Your task to perform on an android device: change timer sound Image 0: 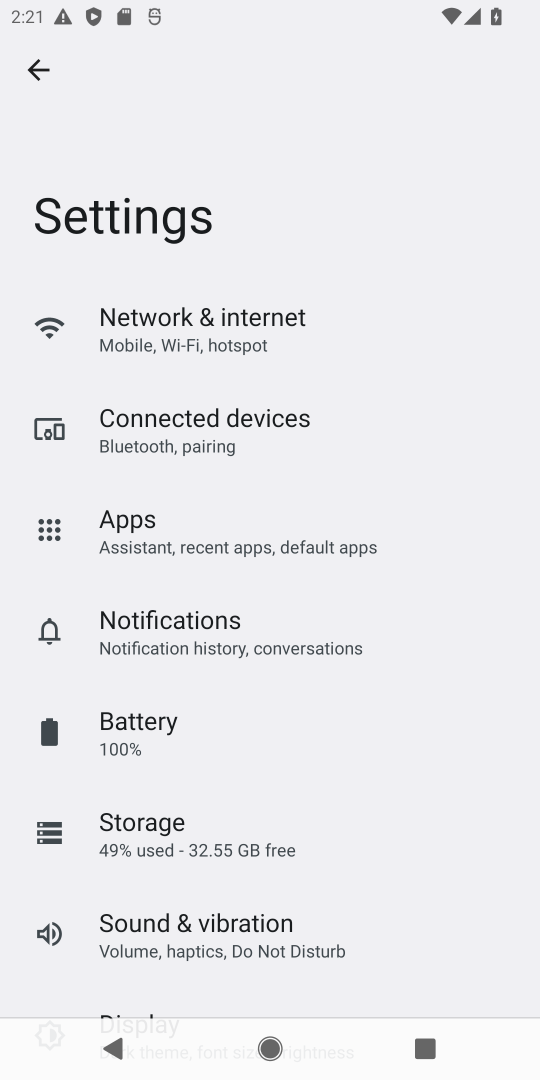
Step 0: press home button
Your task to perform on an android device: change timer sound Image 1: 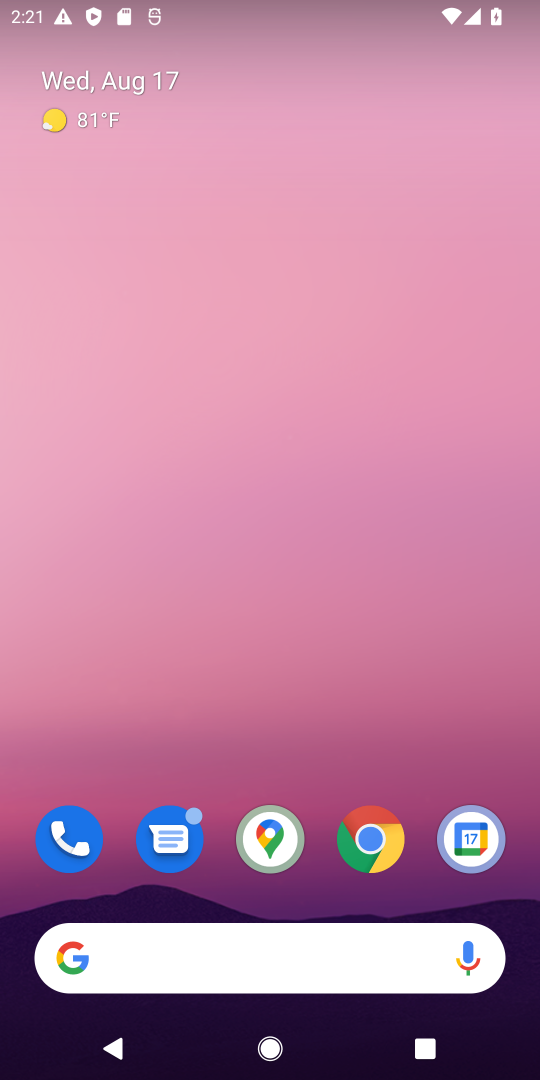
Step 1: drag from (310, 872) to (242, 27)
Your task to perform on an android device: change timer sound Image 2: 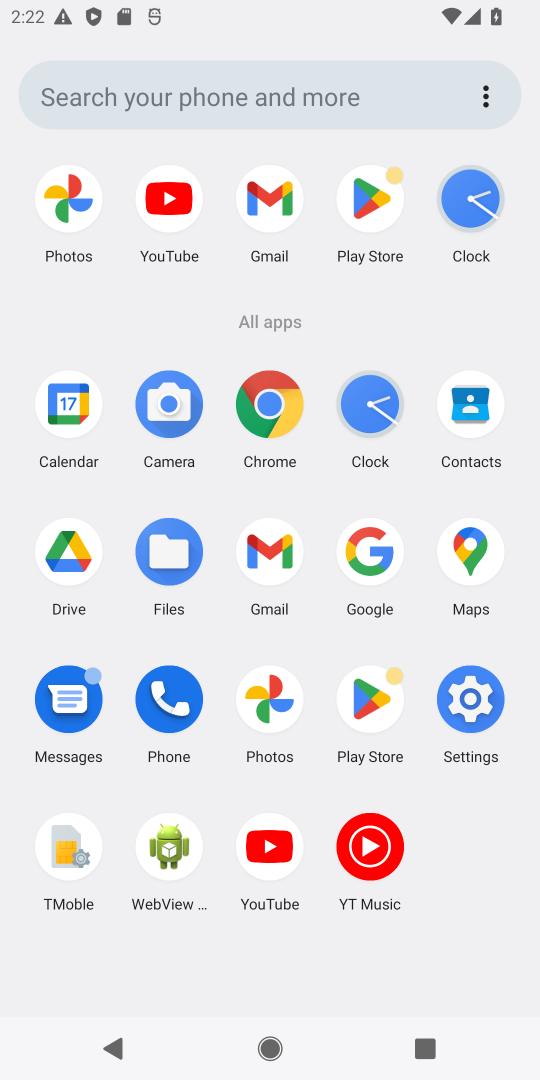
Step 2: click (379, 409)
Your task to perform on an android device: change timer sound Image 3: 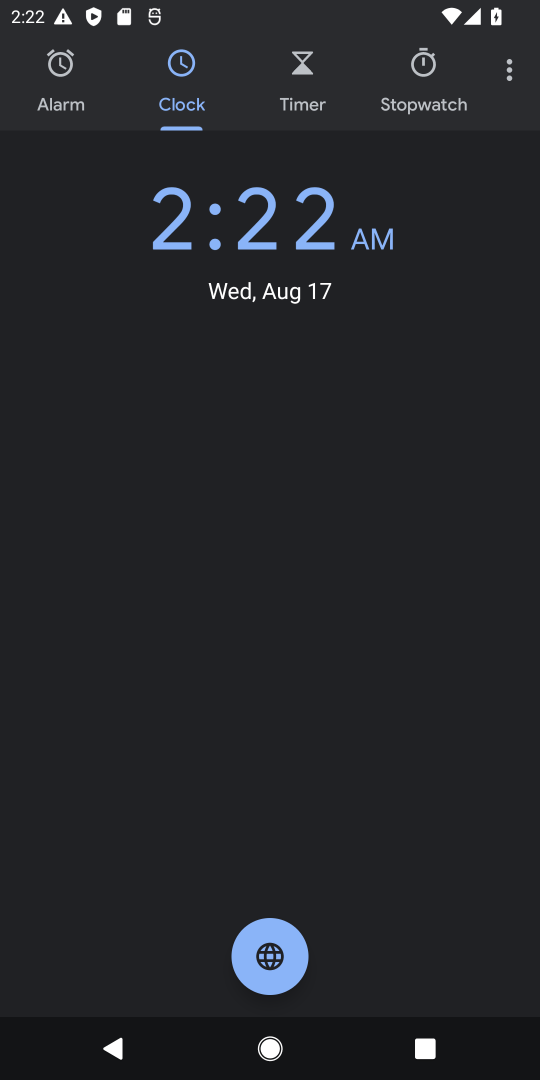
Step 3: click (510, 77)
Your task to perform on an android device: change timer sound Image 4: 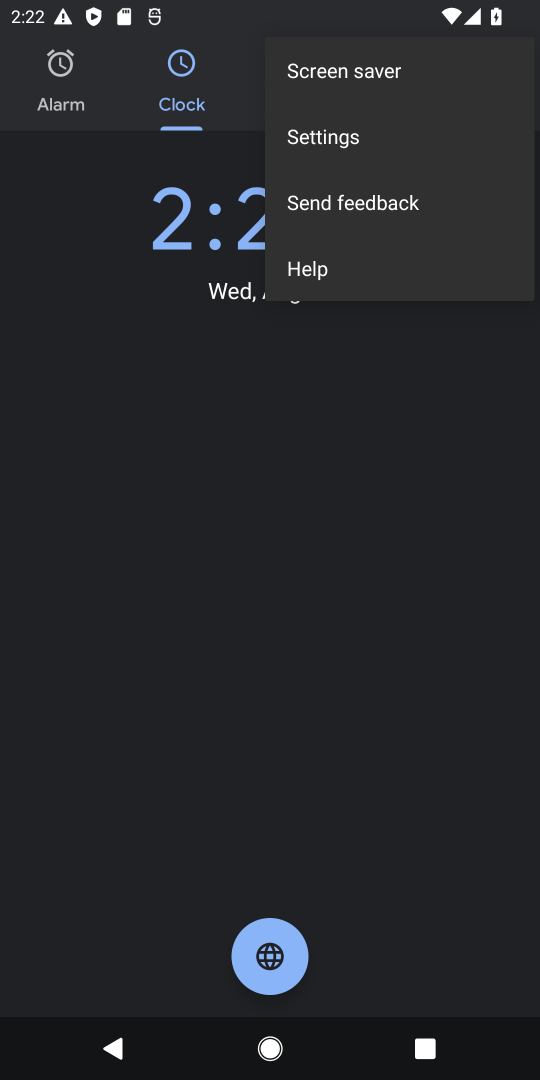
Step 4: click (334, 138)
Your task to perform on an android device: change timer sound Image 5: 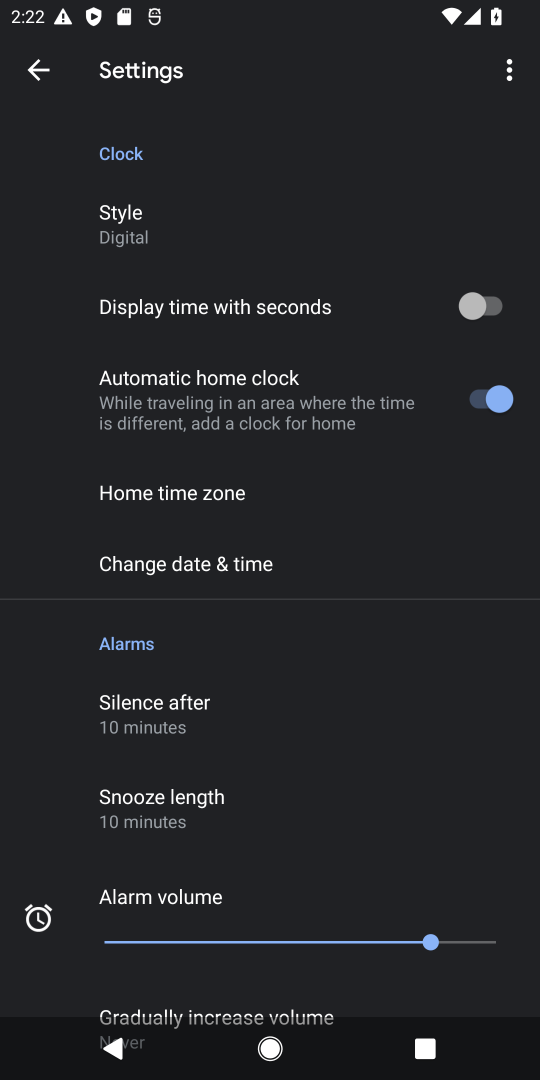
Step 5: drag from (167, 845) to (127, 548)
Your task to perform on an android device: change timer sound Image 6: 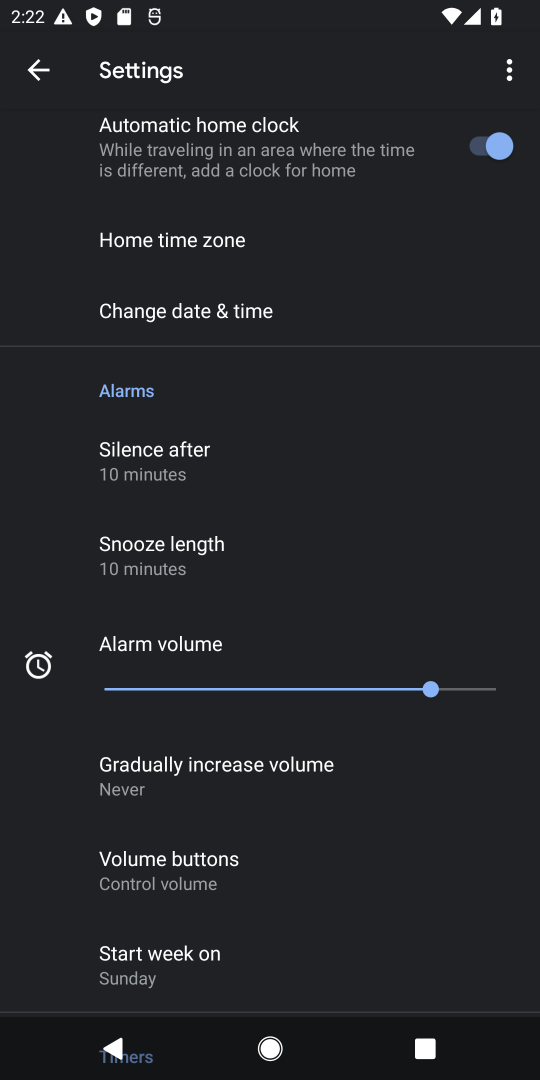
Step 6: drag from (182, 945) to (177, 707)
Your task to perform on an android device: change timer sound Image 7: 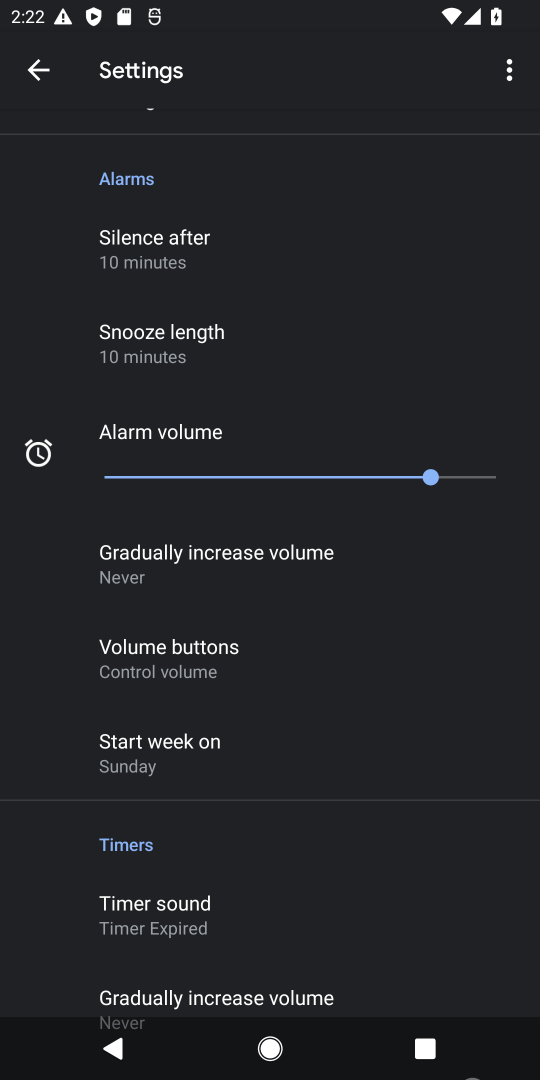
Step 7: click (179, 915)
Your task to perform on an android device: change timer sound Image 8: 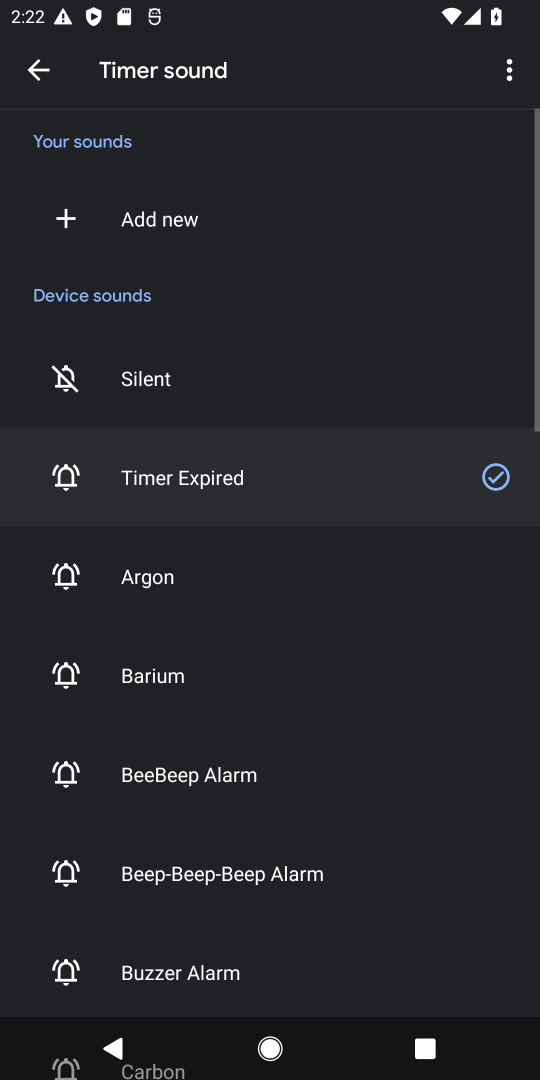
Step 8: click (162, 871)
Your task to perform on an android device: change timer sound Image 9: 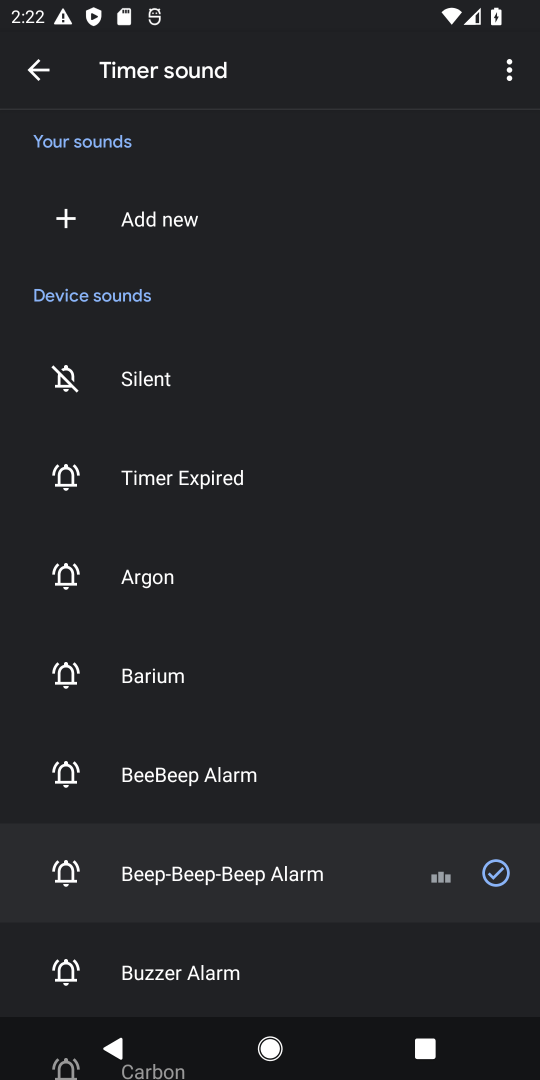
Step 9: task complete